Your task to perform on an android device: Search for sushi restaurants on Maps Image 0: 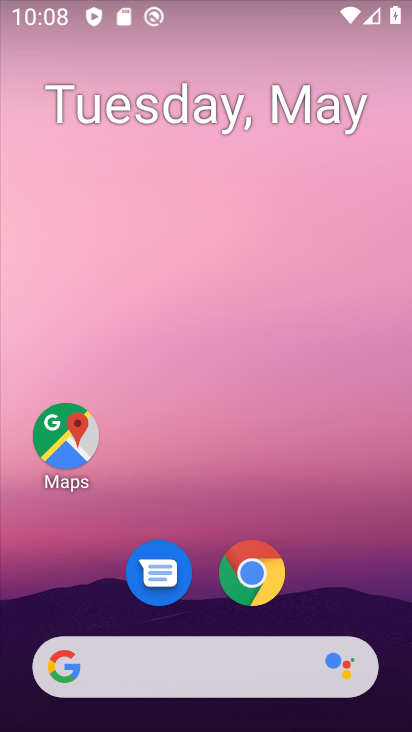
Step 0: click (74, 438)
Your task to perform on an android device: Search for sushi restaurants on Maps Image 1: 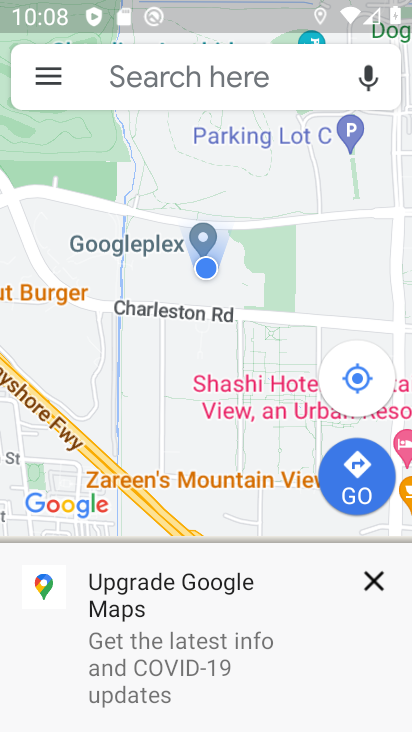
Step 1: click (373, 589)
Your task to perform on an android device: Search for sushi restaurants on Maps Image 2: 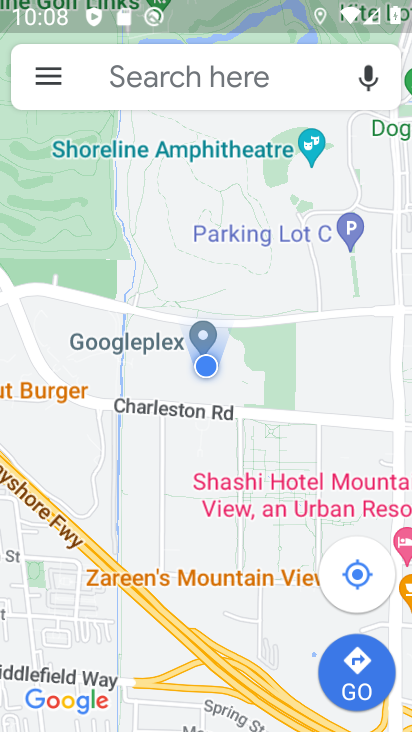
Step 2: click (166, 77)
Your task to perform on an android device: Search for sushi restaurants on Maps Image 3: 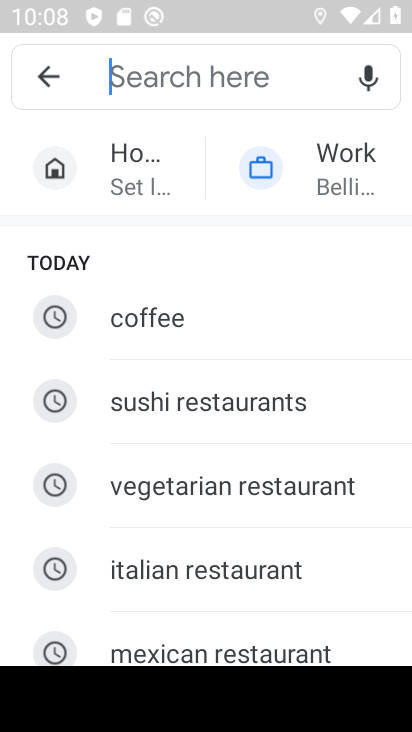
Step 3: type "sushi restaurants"
Your task to perform on an android device: Search for sushi restaurants on Maps Image 4: 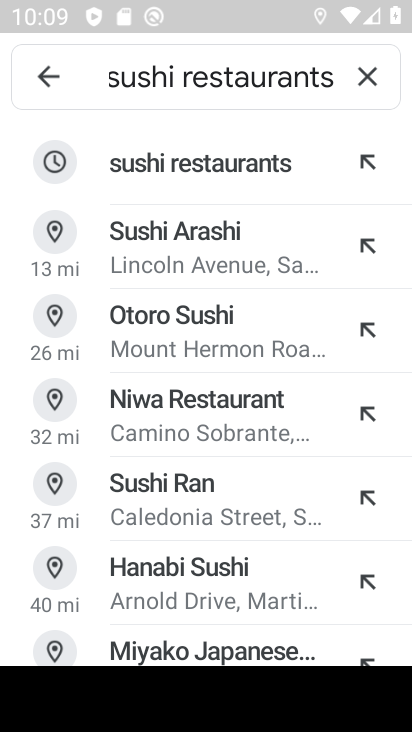
Step 4: click (166, 180)
Your task to perform on an android device: Search for sushi restaurants on Maps Image 5: 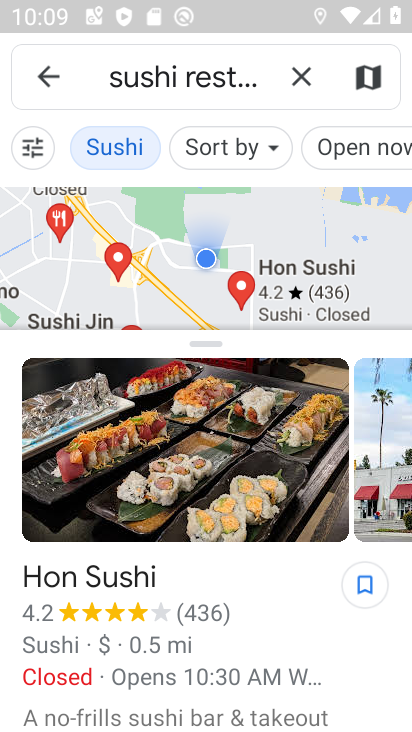
Step 5: task complete